Your task to perform on an android device: delete location history Image 0: 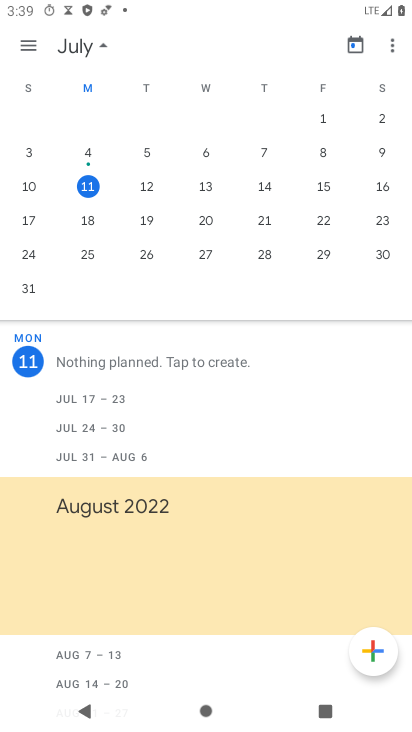
Step 0: press home button
Your task to perform on an android device: delete location history Image 1: 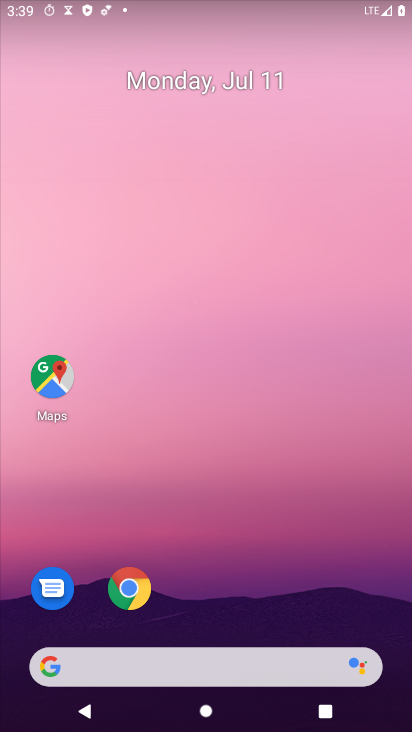
Step 1: click (46, 382)
Your task to perform on an android device: delete location history Image 2: 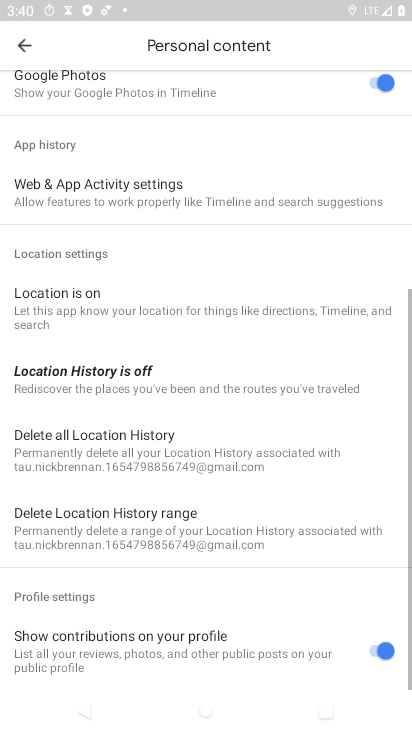
Step 2: click (103, 449)
Your task to perform on an android device: delete location history Image 3: 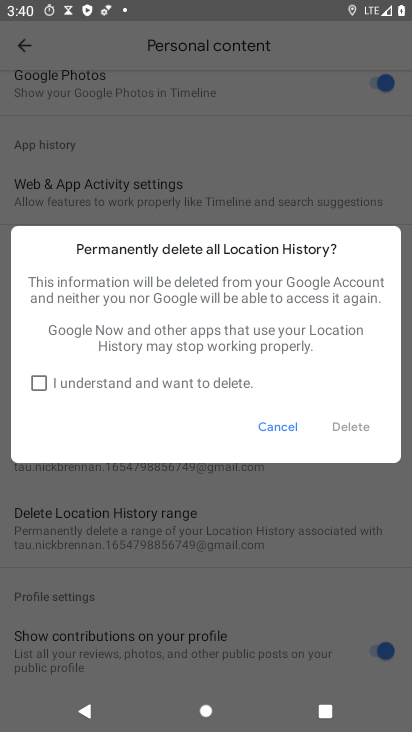
Step 3: click (54, 382)
Your task to perform on an android device: delete location history Image 4: 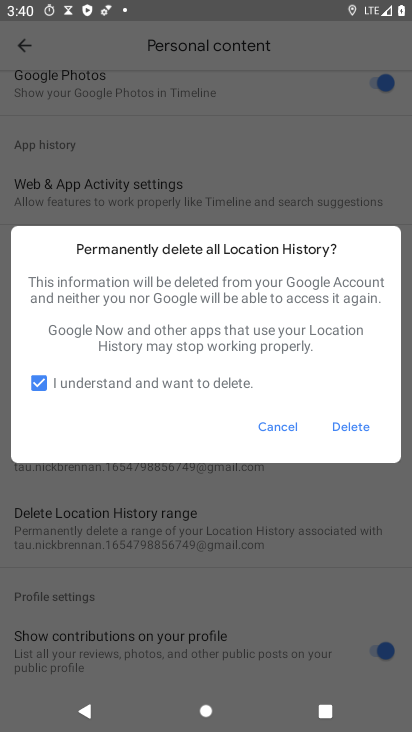
Step 4: click (347, 425)
Your task to perform on an android device: delete location history Image 5: 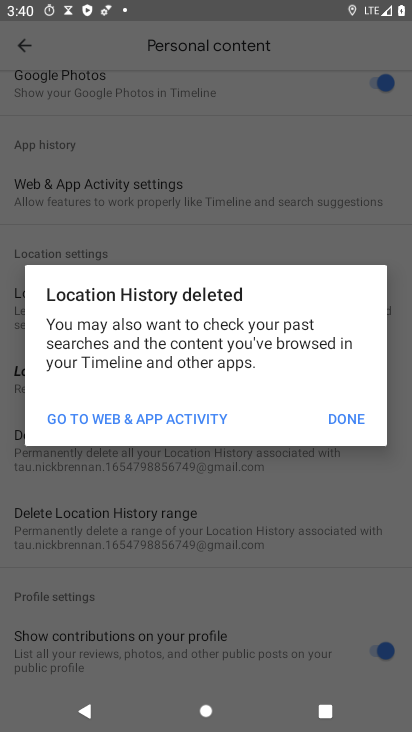
Step 5: click (347, 417)
Your task to perform on an android device: delete location history Image 6: 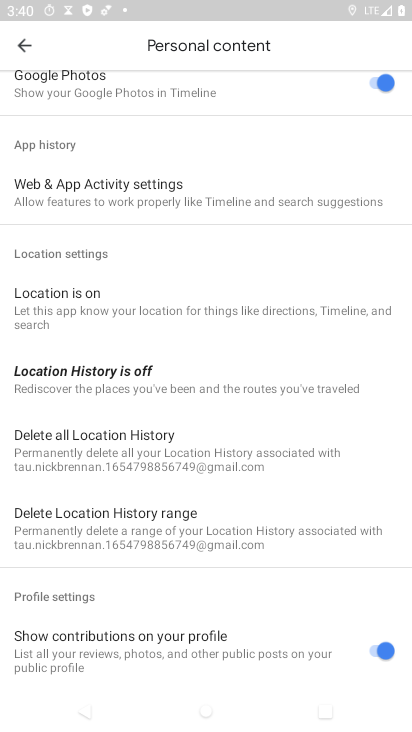
Step 6: task complete